Your task to perform on an android device: delete browsing data in the chrome app Image 0: 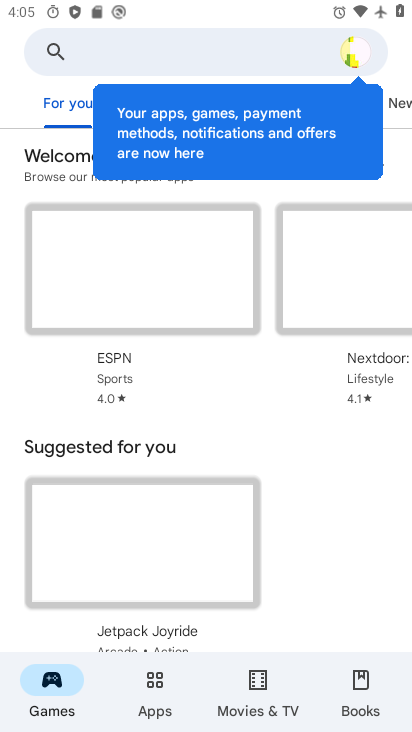
Step 0: press back button
Your task to perform on an android device: delete browsing data in the chrome app Image 1: 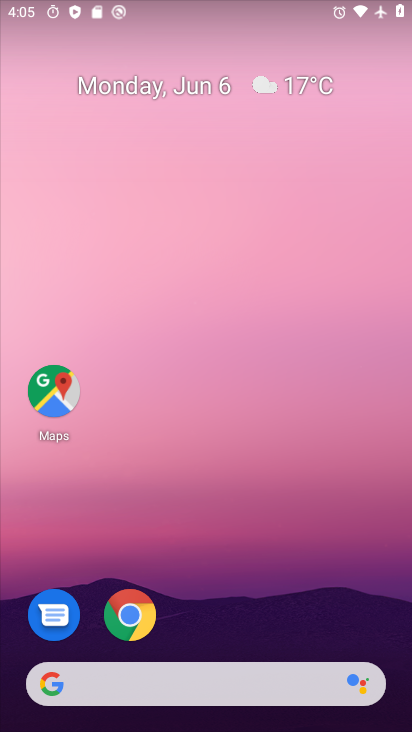
Step 1: drag from (255, 387) to (261, 19)
Your task to perform on an android device: delete browsing data in the chrome app Image 2: 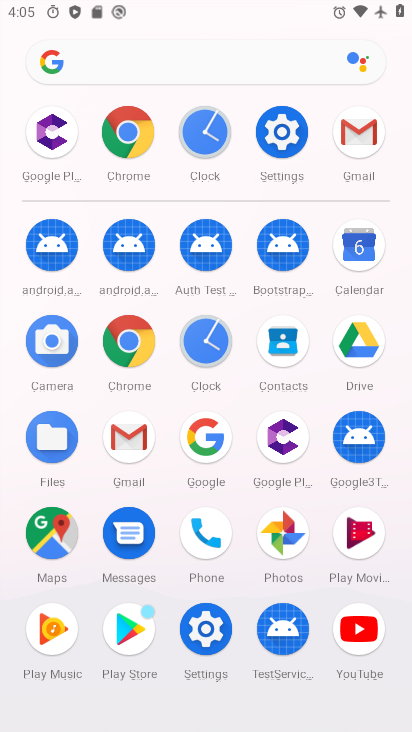
Step 2: click (126, 339)
Your task to perform on an android device: delete browsing data in the chrome app Image 3: 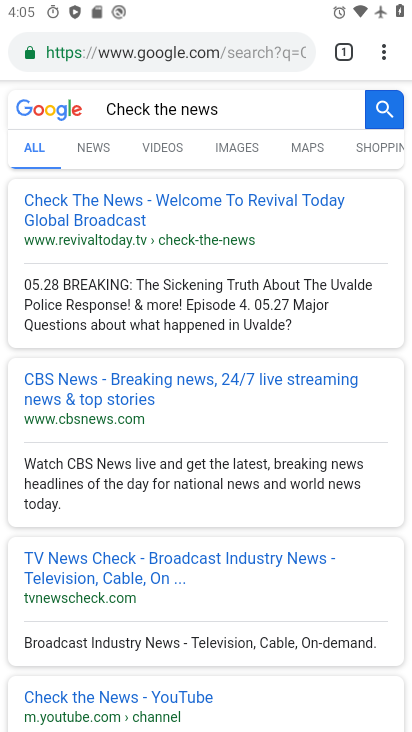
Step 3: drag from (380, 51) to (196, 290)
Your task to perform on an android device: delete browsing data in the chrome app Image 4: 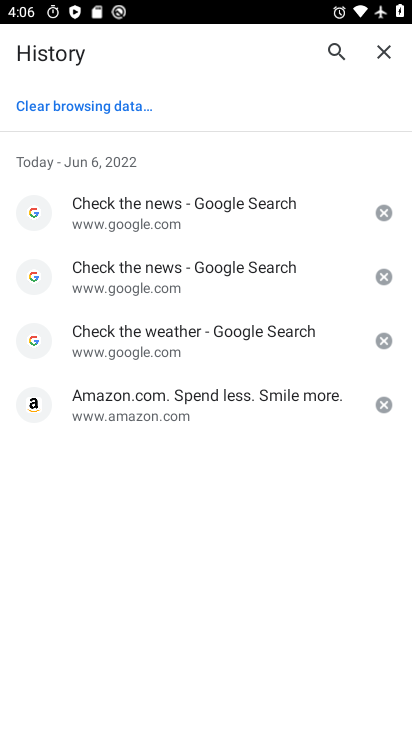
Step 4: click (93, 99)
Your task to perform on an android device: delete browsing data in the chrome app Image 5: 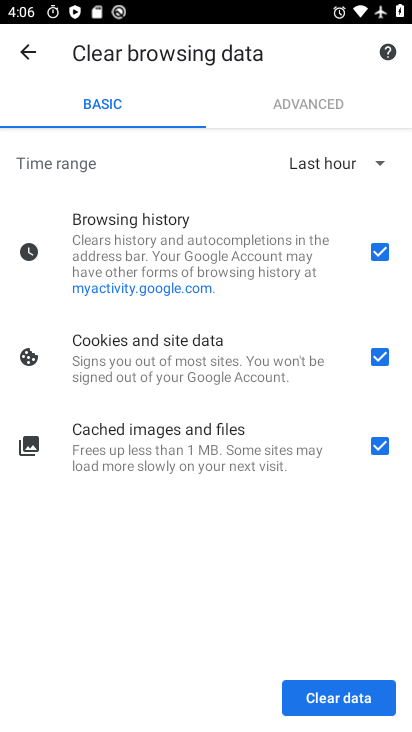
Step 5: click (337, 683)
Your task to perform on an android device: delete browsing data in the chrome app Image 6: 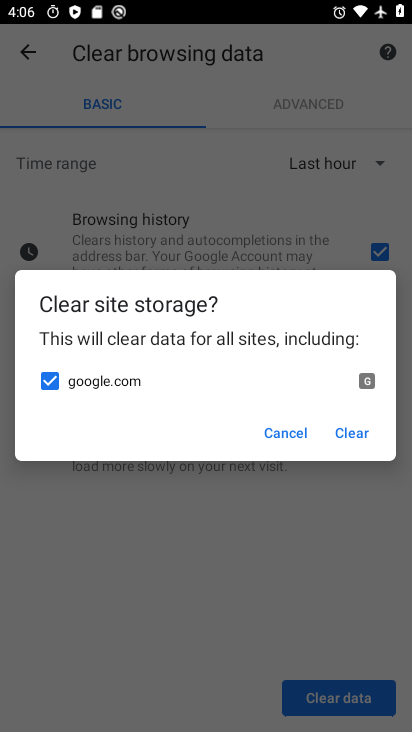
Step 6: click (353, 429)
Your task to perform on an android device: delete browsing data in the chrome app Image 7: 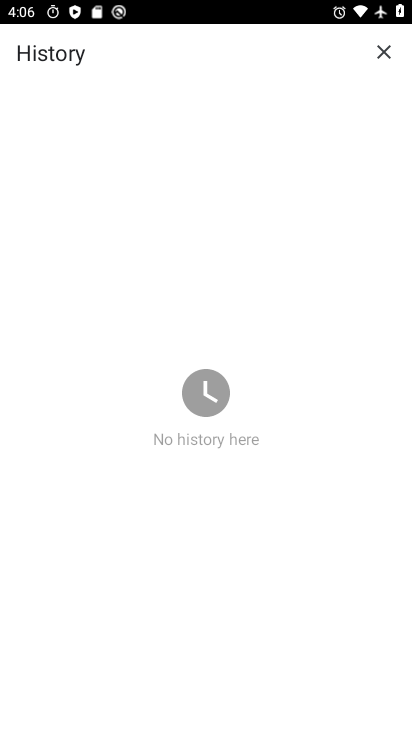
Step 7: task complete